Your task to perform on an android device: turn off location history Image 0: 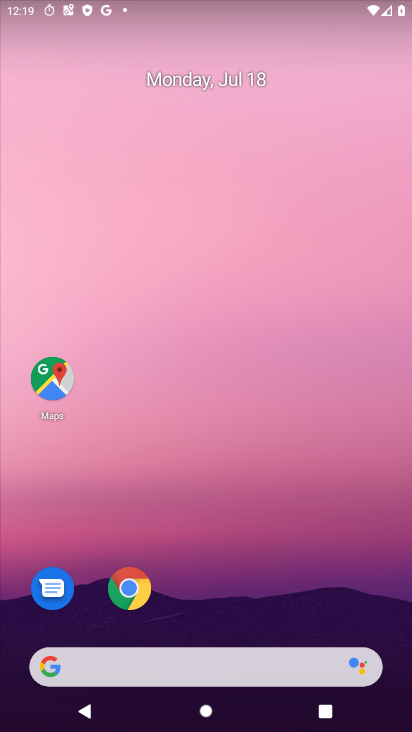
Step 0: drag from (320, 534) to (399, 22)
Your task to perform on an android device: turn off location history Image 1: 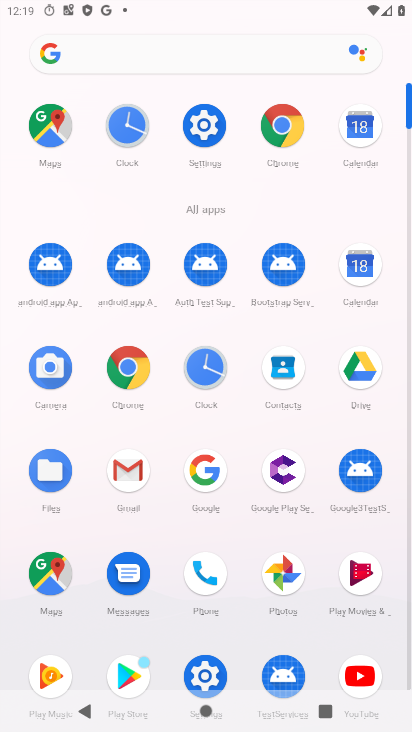
Step 1: click (189, 114)
Your task to perform on an android device: turn off location history Image 2: 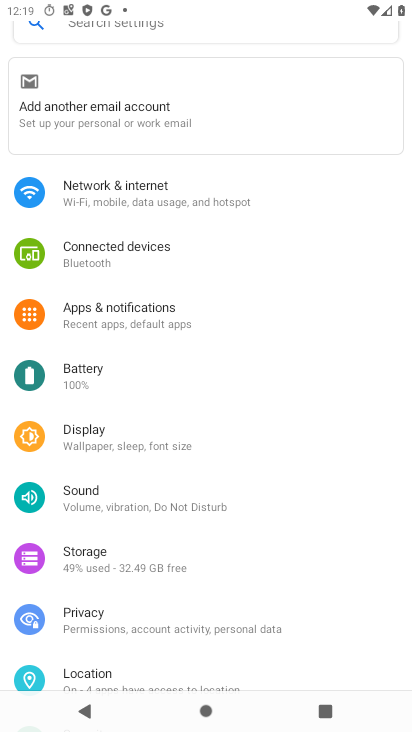
Step 2: click (56, 670)
Your task to perform on an android device: turn off location history Image 3: 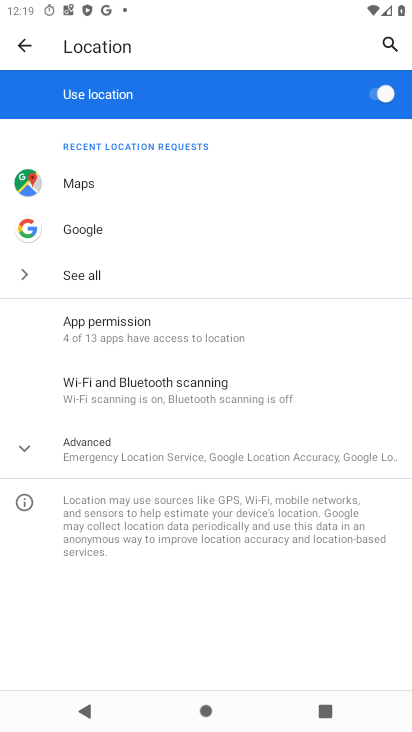
Step 3: click (172, 458)
Your task to perform on an android device: turn off location history Image 4: 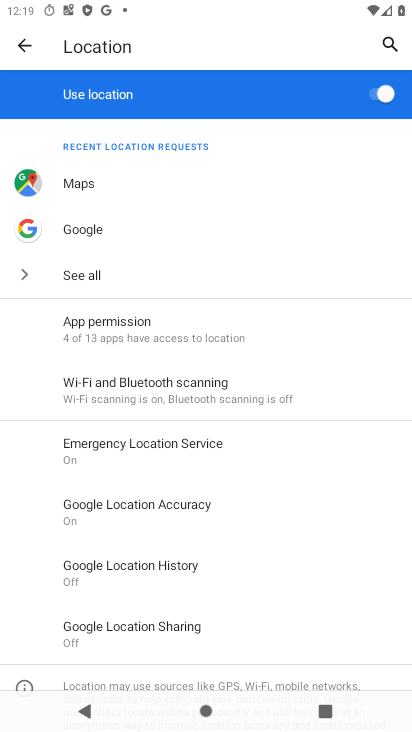
Step 4: click (133, 578)
Your task to perform on an android device: turn off location history Image 5: 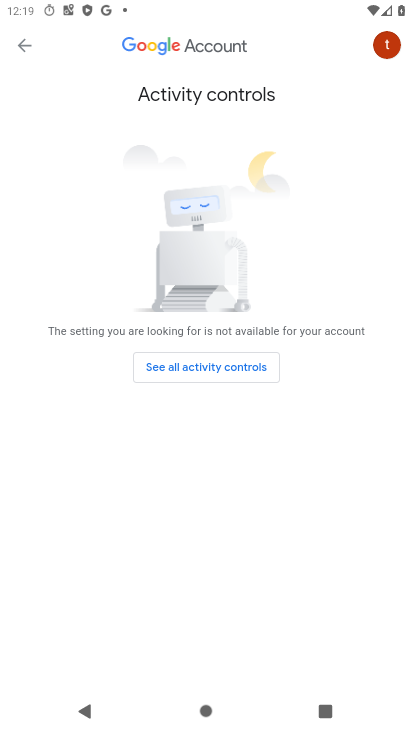
Step 5: click (196, 362)
Your task to perform on an android device: turn off location history Image 6: 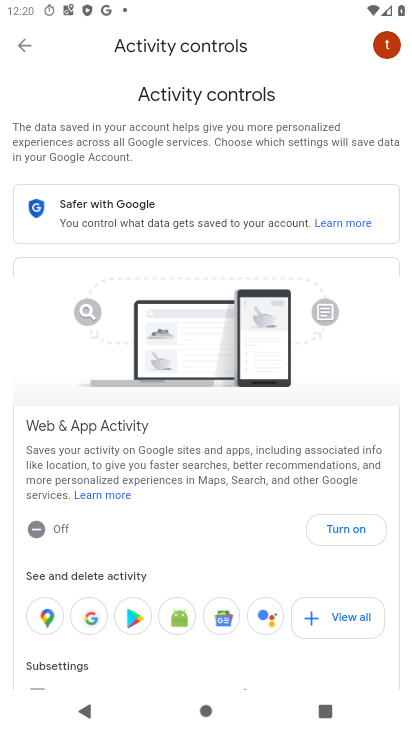
Step 6: task complete